Your task to perform on an android device: show emergency info Image 0: 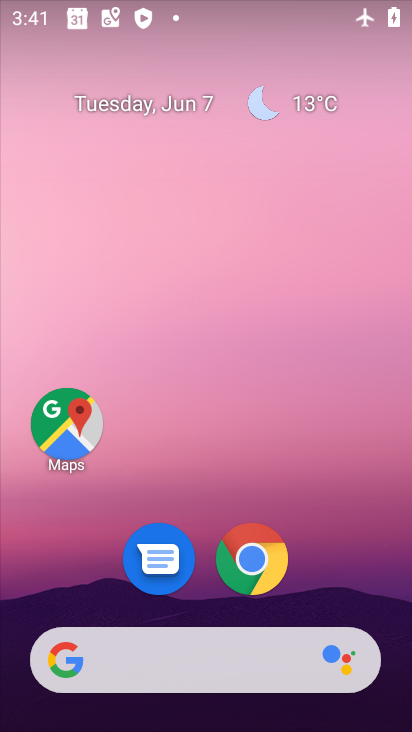
Step 0: drag from (335, 570) to (262, 71)
Your task to perform on an android device: show emergency info Image 1: 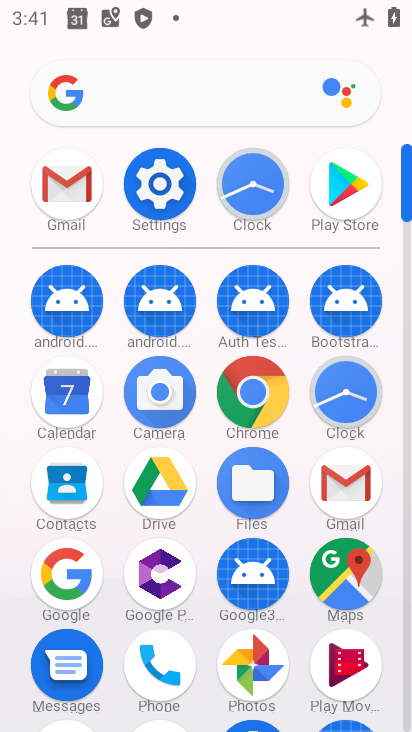
Step 1: click (159, 188)
Your task to perform on an android device: show emergency info Image 2: 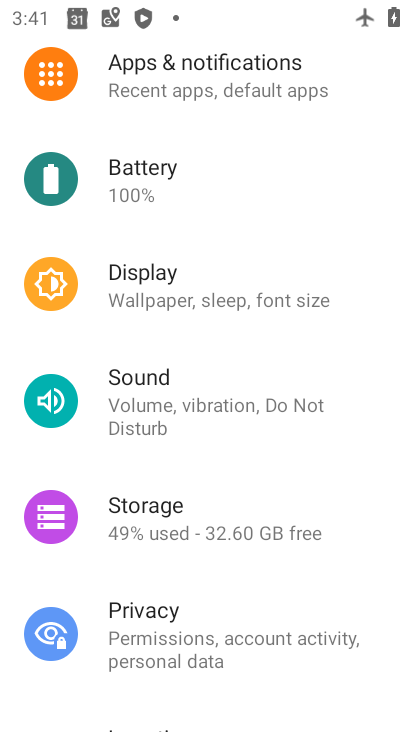
Step 2: drag from (181, 568) to (260, 422)
Your task to perform on an android device: show emergency info Image 3: 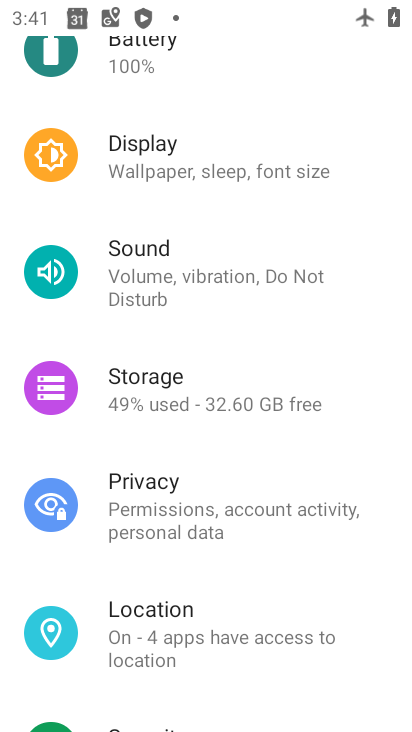
Step 3: drag from (201, 668) to (268, 541)
Your task to perform on an android device: show emergency info Image 4: 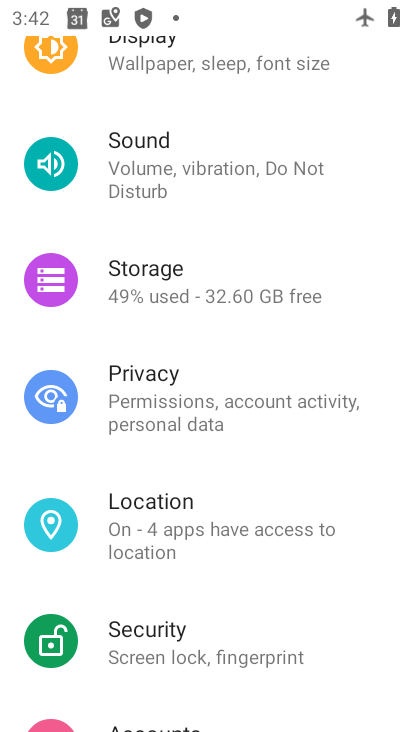
Step 4: drag from (179, 598) to (300, 434)
Your task to perform on an android device: show emergency info Image 5: 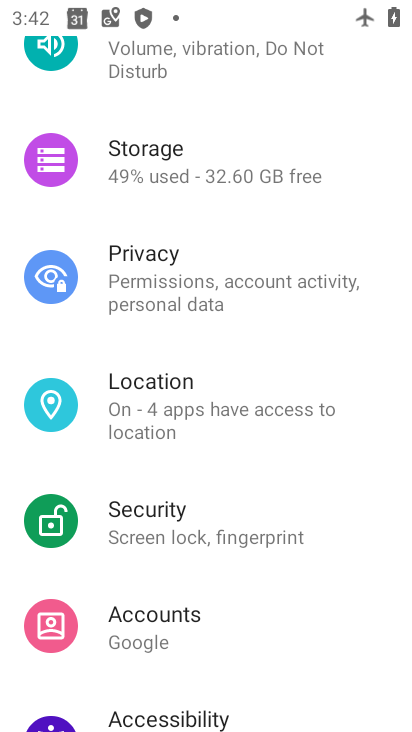
Step 5: drag from (181, 579) to (251, 466)
Your task to perform on an android device: show emergency info Image 6: 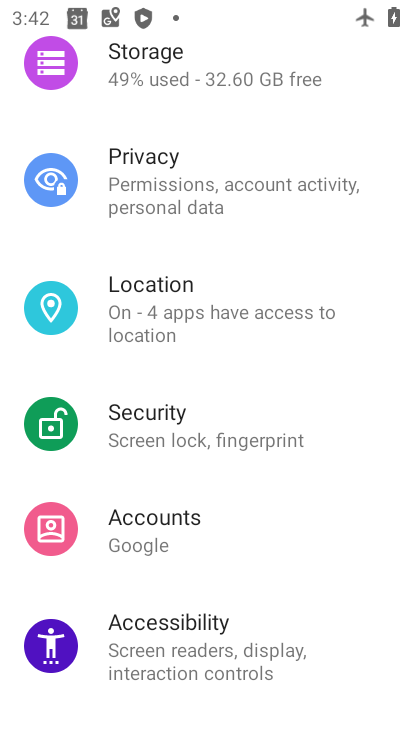
Step 6: drag from (149, 594) to (236, 485)
Your task to perform on an android device: show emergency info Image 7: 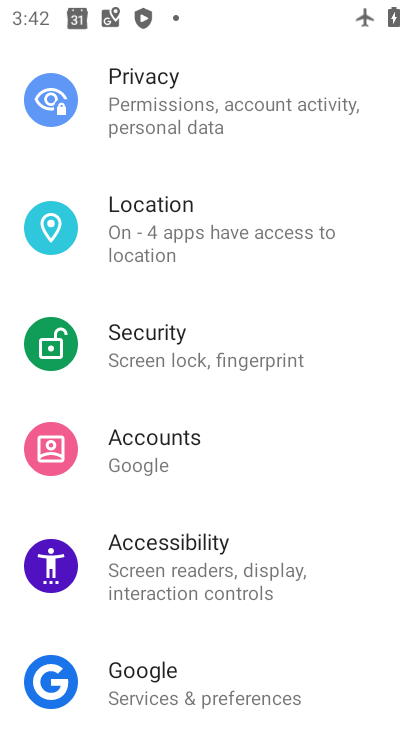
Step 7: drag from (133, 640) to (228, 517)
Your task to perform on an android device: show emergency info Image 8: 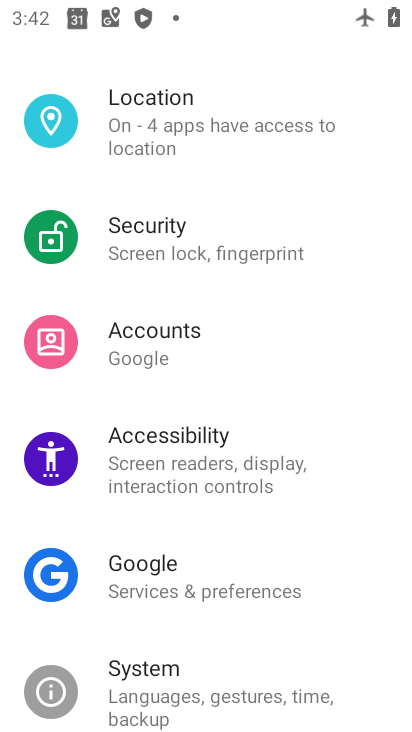
Step 8: drag from (121, 628) to (230, 493)
Your task to perform on an android device: show emergency info Image 9: 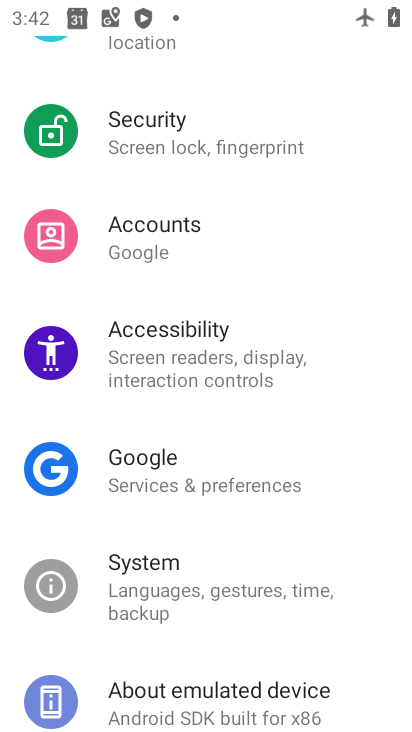
Step 9: drag from (127, 634) to (226, 512)
Your task to perform on an android device: show emergency info Image 10: 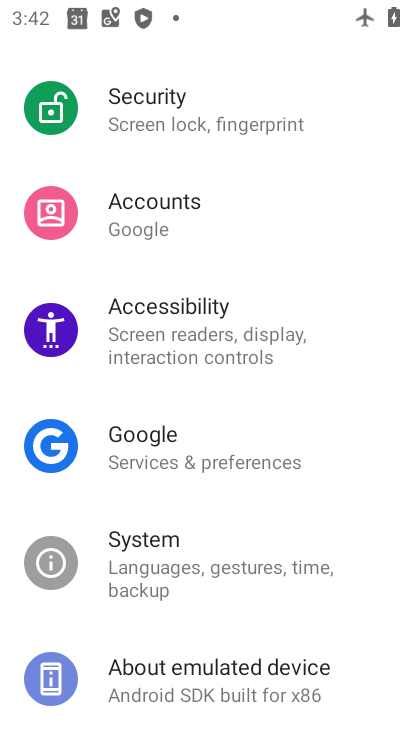
Step 10: click (172, 678)
Your task to perform on an android device: show emergency info Image 11: 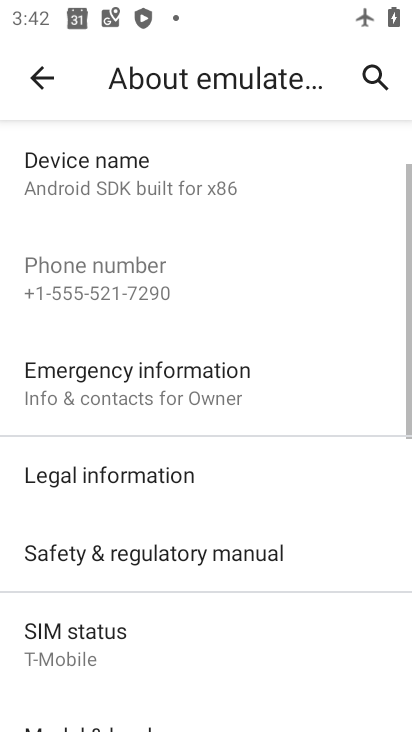
Step 11: click (182, 387)
Your task to perform on an android device: show emergency info Image 12: 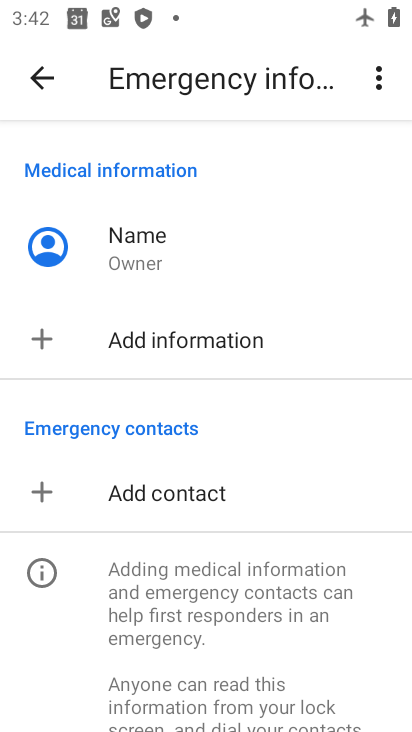
Step 12: task complete